Your task to perform on an android device: turn off location Image 0: 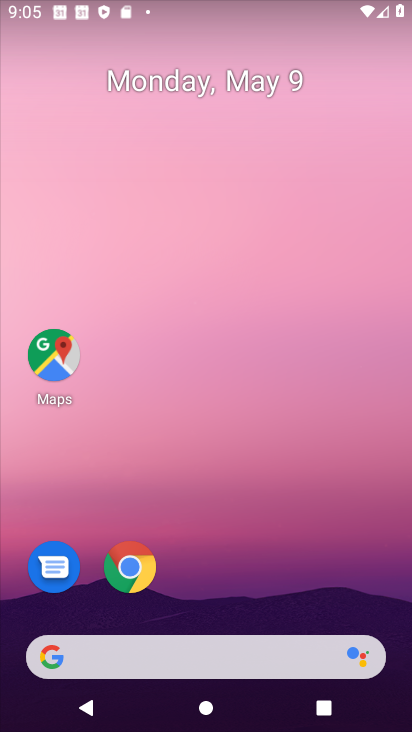
Step 0: drag from (291, 669) to (151, 16)
Your task to perform on an android device: turn off location Image 1: 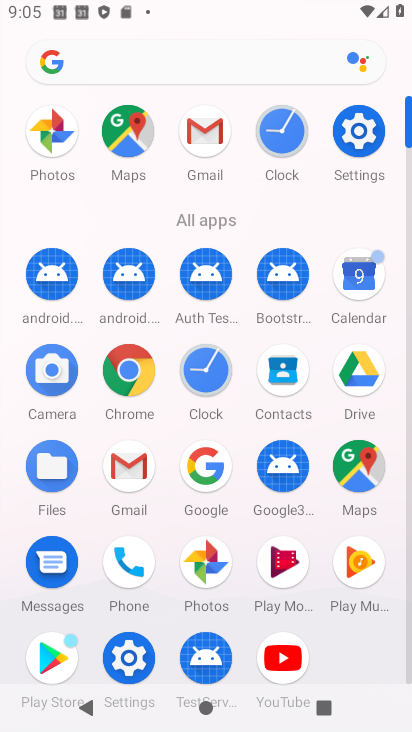
Step 1: click (369, 153)
Your task to perform on an android device: turn off location Image 2: 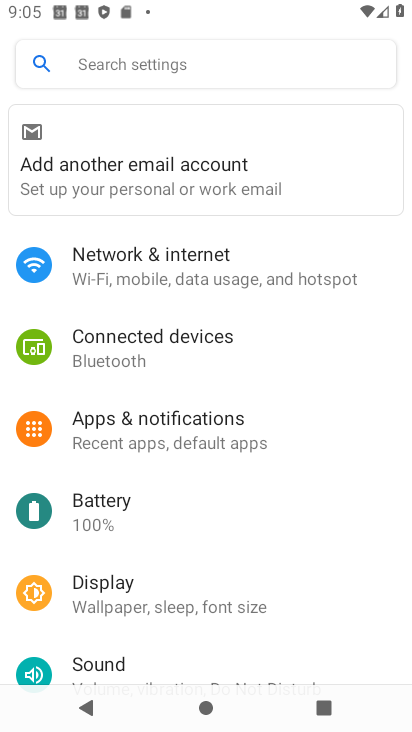
Step 2: drag from (129, 559) to (63, 139)
Your task to perform on an android device: turn off location Image 3: 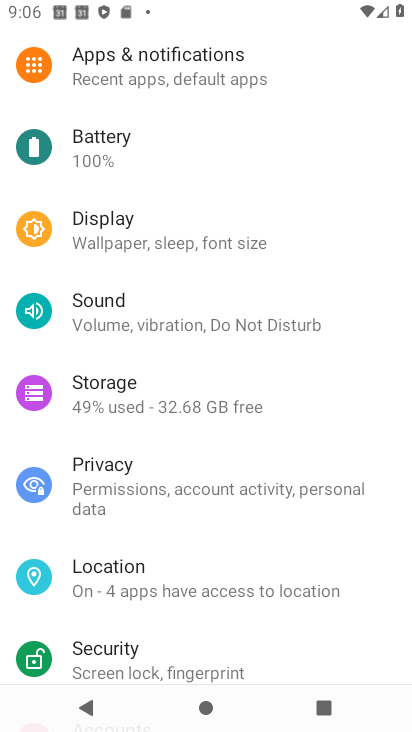
Step 3: click (109, 565)
Your task to perform on an android device: turn off location Image 4: 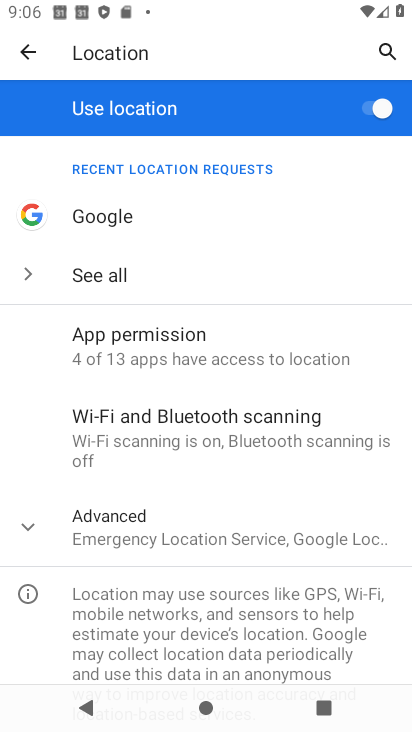
Step 4: click (384, 101)
Your task to perform on an android device: turn off location Image 5: 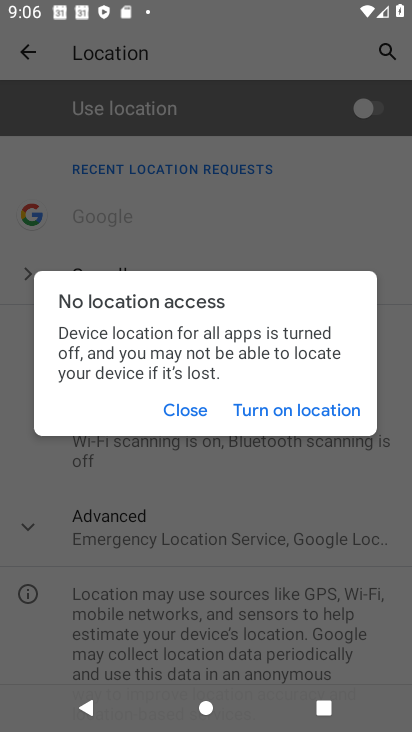
Step 5: click (189, 421)
Your task to perform on an android device: turn off location Image 6: 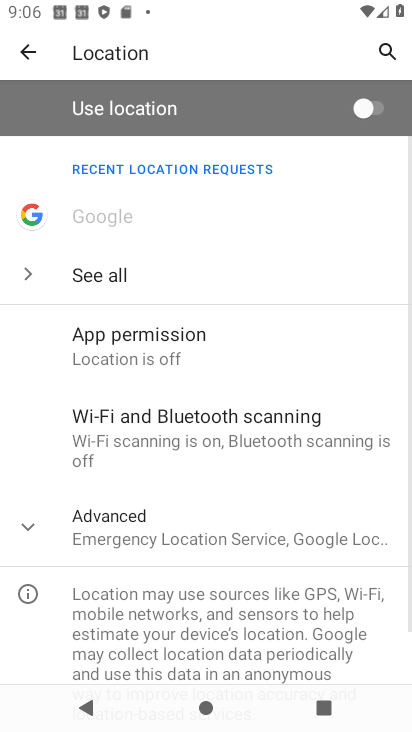
Step 6: task complete